Your task to perform on an android device: Open calendar and show me the fourth week of next month Image 0: 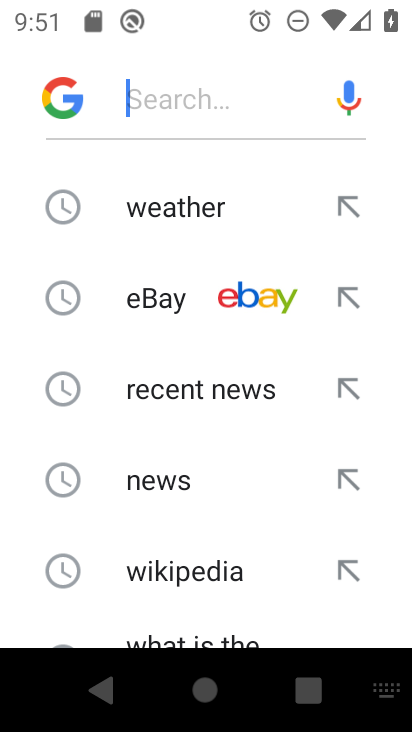
Step 0: press home button
Your task to perform on an android device: Open calendar and show me the fourth week of next month Image 1: 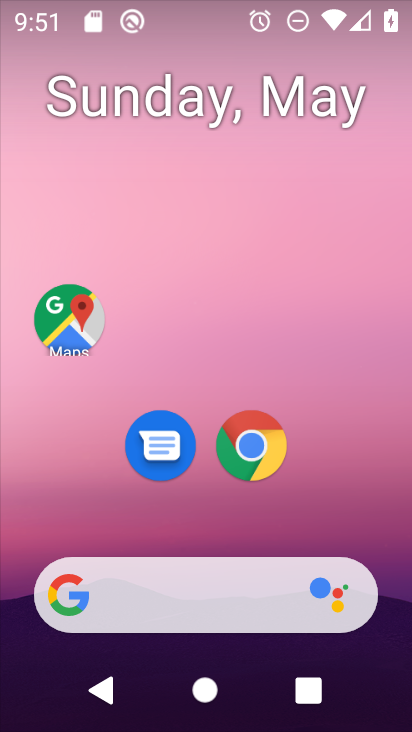
Step 1: drag from (194, 525) to (210, 74)
Your task to perform on an android device: Open calendar and show me the fourth week of next month Image 2: 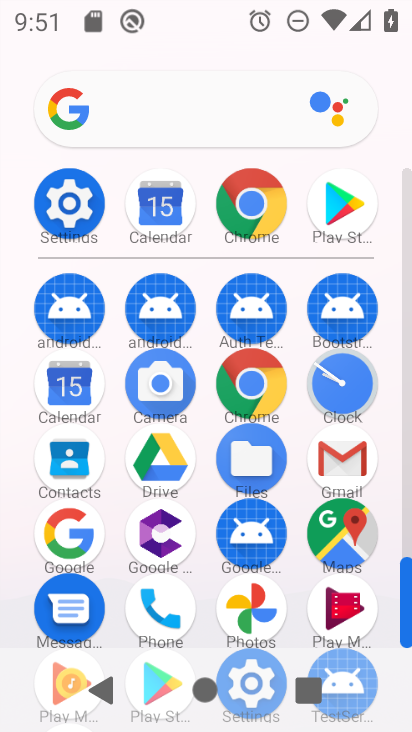
Step 2: click (69, 398)
Your task to perform on an android device: Open calendar and show me the fourth week of next month Image 3: 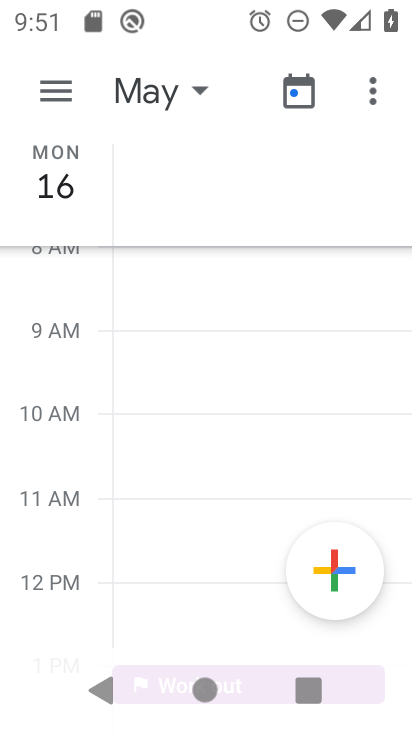
Step 3: click (58, 69)
Your task to perform on an android device: Open calendar and show me the fourth week of next month Image 4: 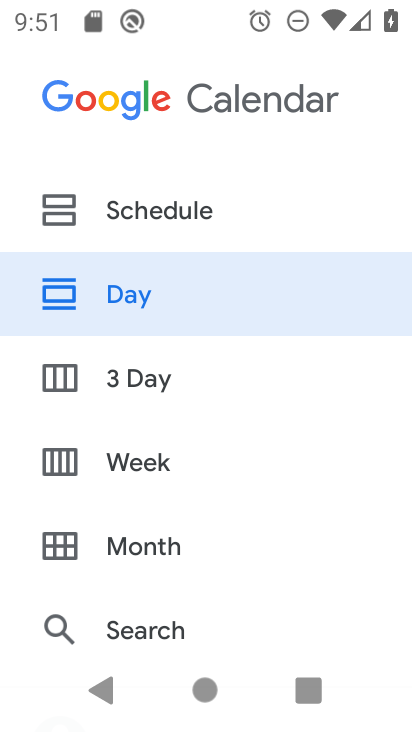
Step 4: press back button
Your task to perform on an android device: Open calendar and show me the fourth week of next month Image 5: 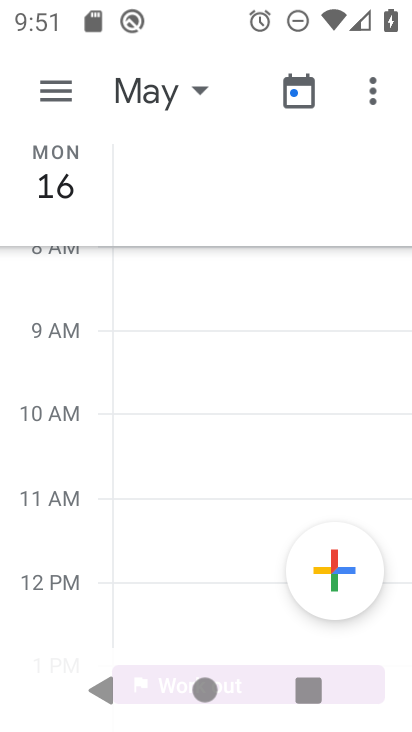
Step 5: click (185, 96)
Your task to perform on an android device: Open calendar and show me the fourth week of next month Image 6: 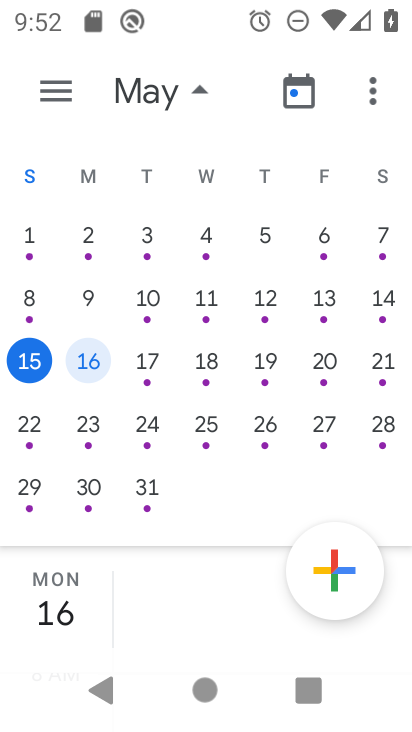
Step 6: drag from (344, 351) to (28, 130)
Your task to perform on an android device: Open calendar and show me the fourth week of next month Image 7: 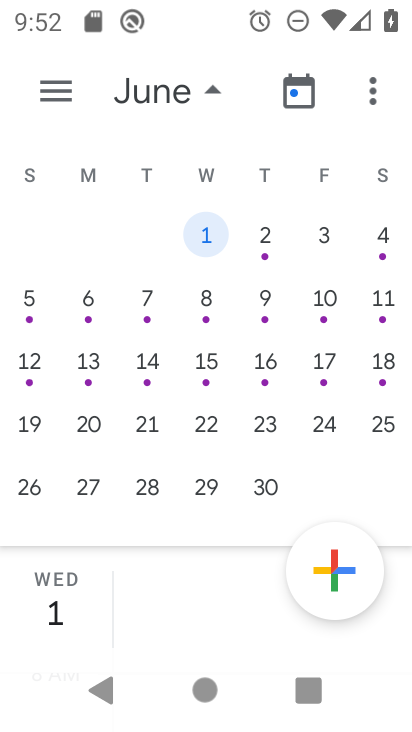
Step 7: click (34, 495)
Your task to perform on an android device: Open calendar and show me the fourth week of next month Image 8: 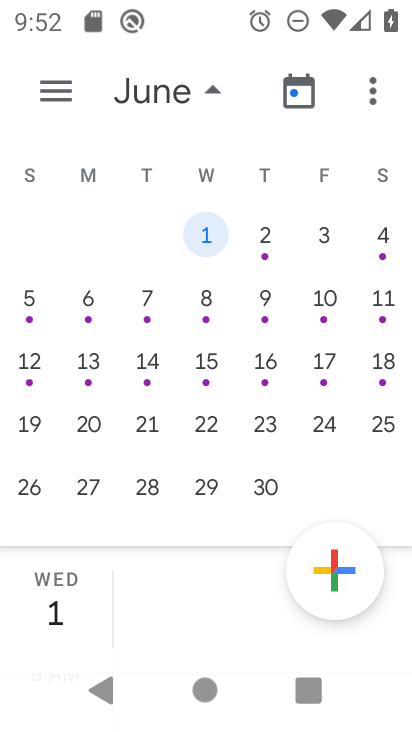
Step 8: click (34, 495)
Your task to perform on an android device: Open calendar and show me the fourth week of next month Image 9: 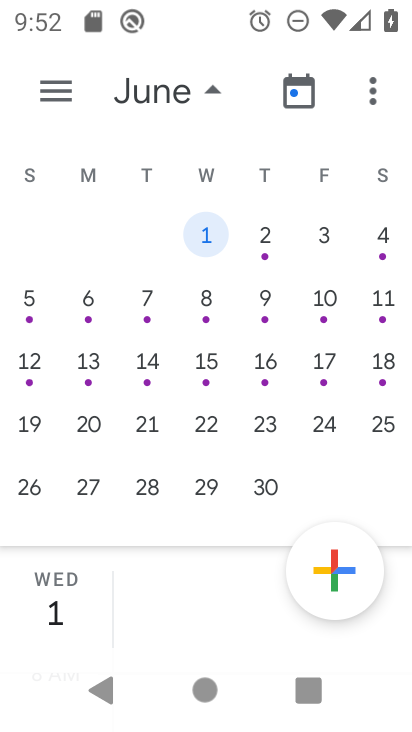
Step 9: click (34, 494)
Your task to perform on an android device: Open calendar and show me the fourth week of next month Image 10: 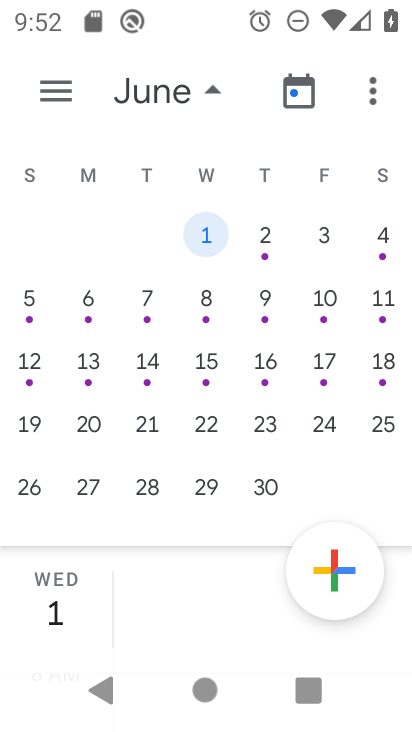
Step 10: click (42, 501)
Your task to perform on an android device: Open calendar and show me the fourth week of next month Image 11: 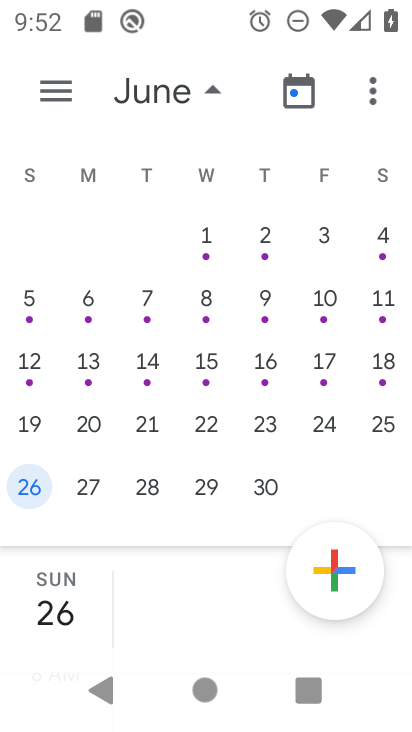
Step 11: task complete